Your task to perform on an android device: Show me the alarms in the clock app Image 0: 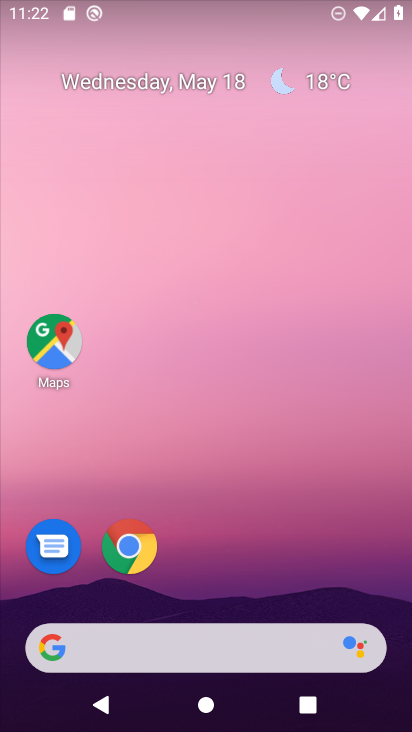
Step 0: drag from (226, 718) to (219, 118)
Your task to perform on an android device: Show me the alarms in the clock app Image 1: 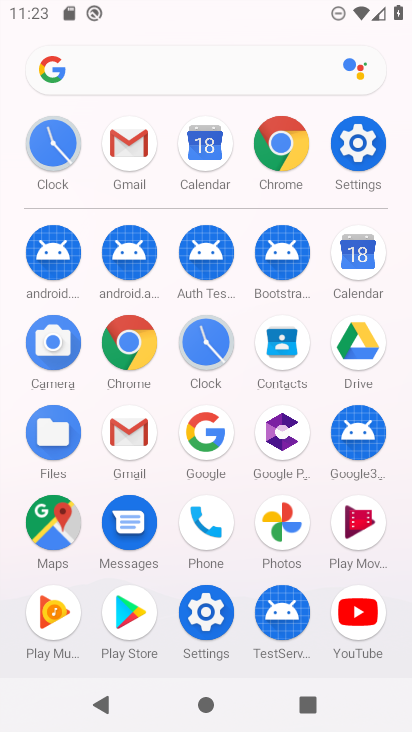
Step 1: click (212, 345)
Your task to perform on an android device: Show me the alarms in the clock app Image 2: 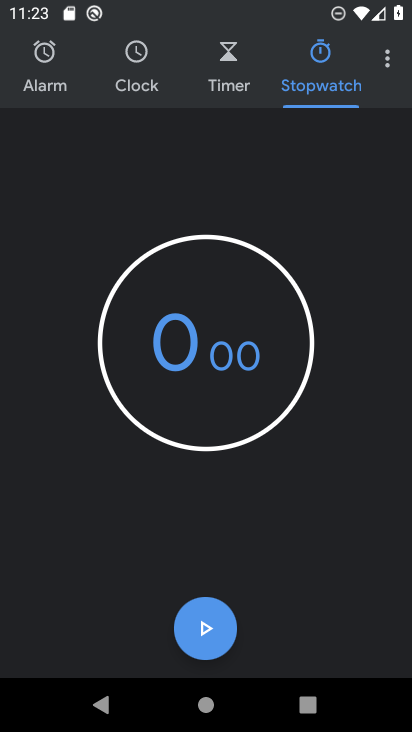
Step 2: click (54, 68)
Your task to perform on an android device: Show me the alarms in the clock app Image 3: 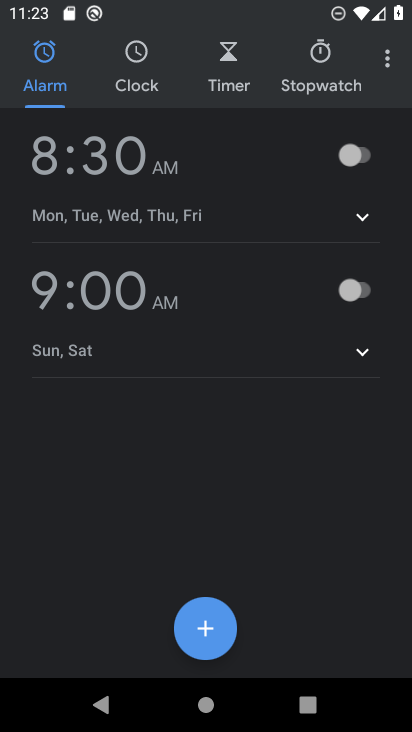
Step 3: task complete